Your task to perform on an android device: snooze an email in the gmail app Image 0: 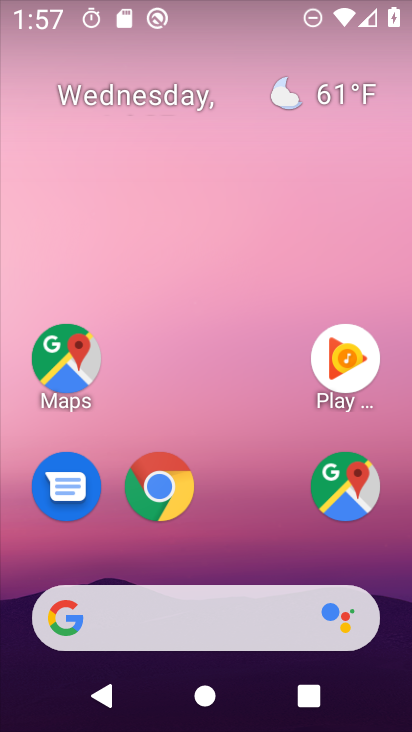
Step 0: press home button
Your task to perform on an android device: snooze an email in the gmail app Image 1: 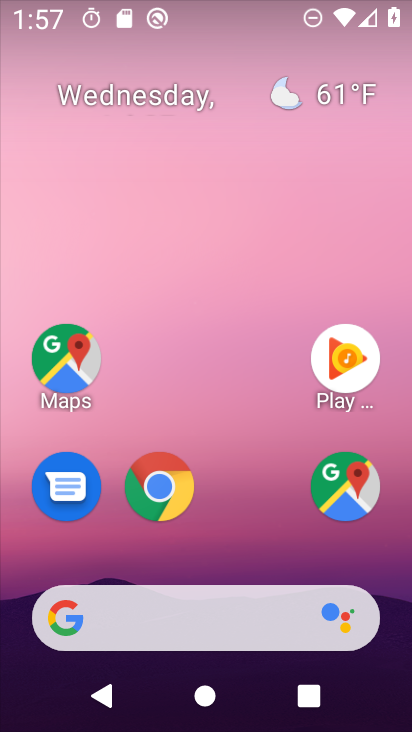
Step 1: drag from (254, 525) to (263, 106)
Your task to perform on an android device: snooze an email in the gmail app Image 2: 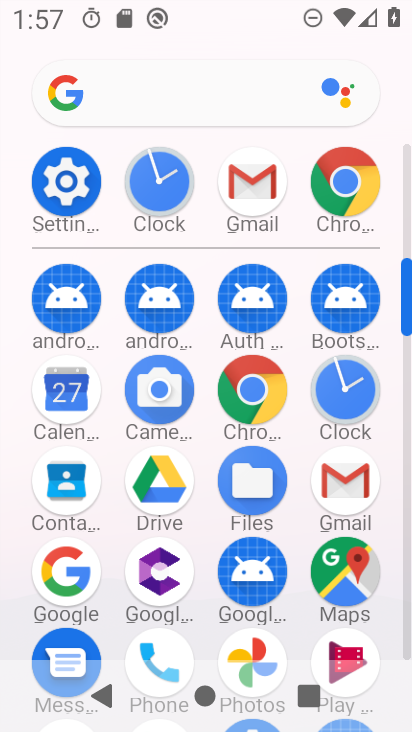
Step 2: click (352, 482)
Your task to perform on an android device: snooze an email in the gmail app Image 3: 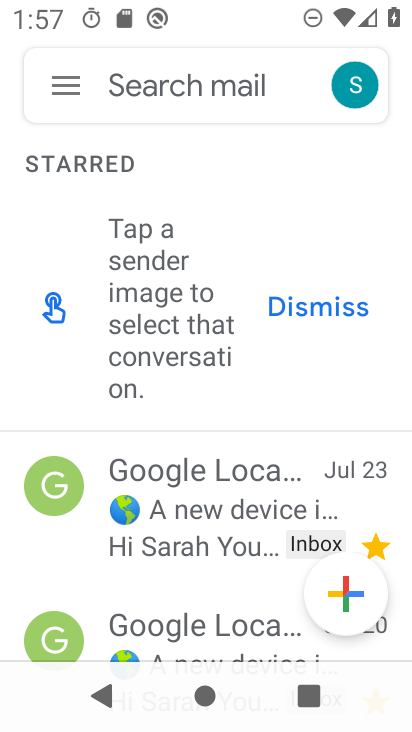
Step 3: click (65, 83)
Your task to perform on an android device: snooze an email in the gmail app Image 4: 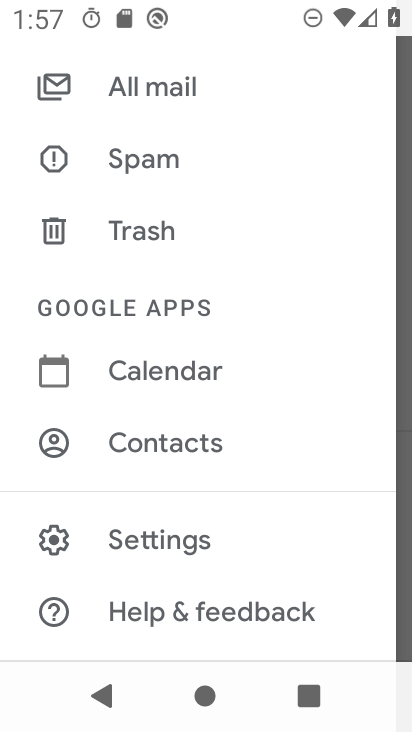
Step 4: drag from (332, 298) to (325, 374)
Your task to perform on an android device: snooze an email in the gmail app Image 5: 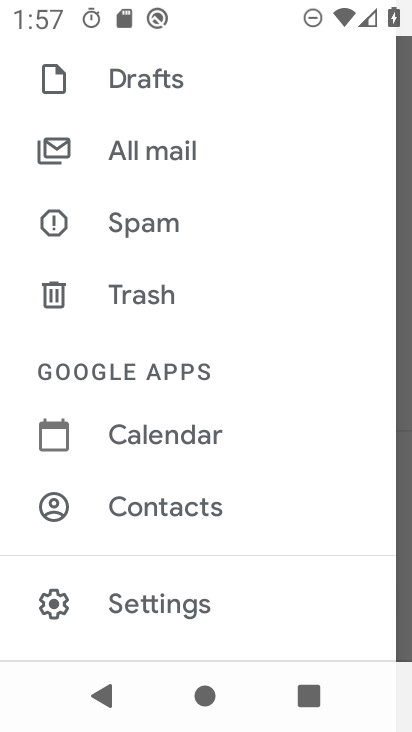
Step 5: drag from (311, 236) to (311, 327)
Your task to perform on an android device: snooze an email in the gmail app Image 6: 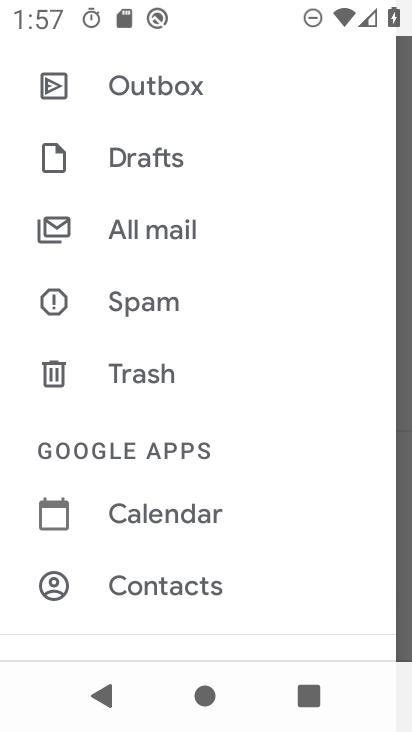
Step 6: drag from (271, 220) to (293, 490)
Your task to perform on an android device: snooze an email in the gmail app Image 7: 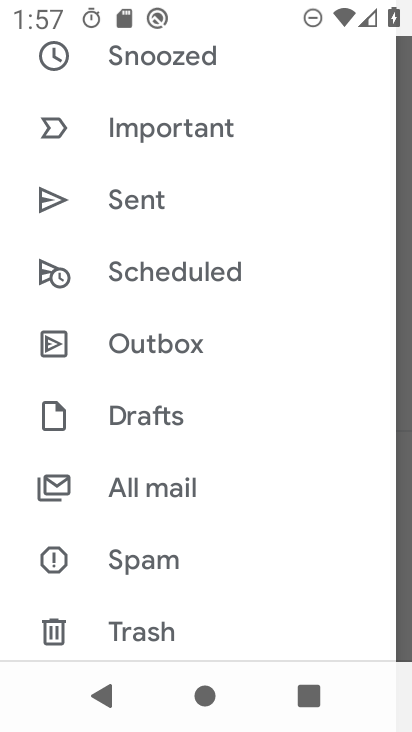
Step 7: drag from (303, 234) to (309, 385)
Your task to perform on an android device: snooze an email in the gmail app Image 8: 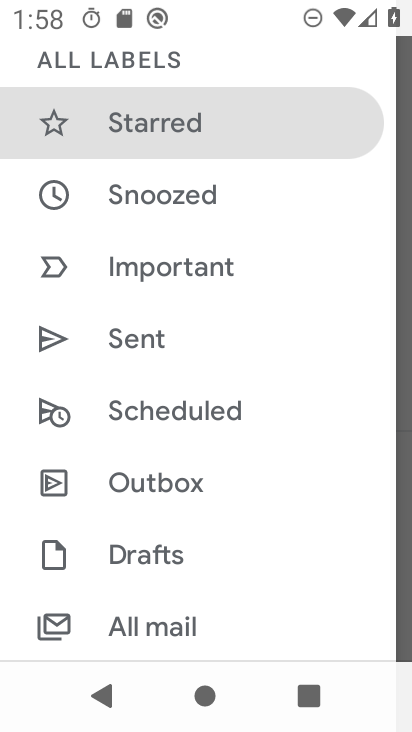
Step 8: drag from (310, 194) to (321, 380)
Your task to perform on an android device: snooze an email in the gmail app Image 9: 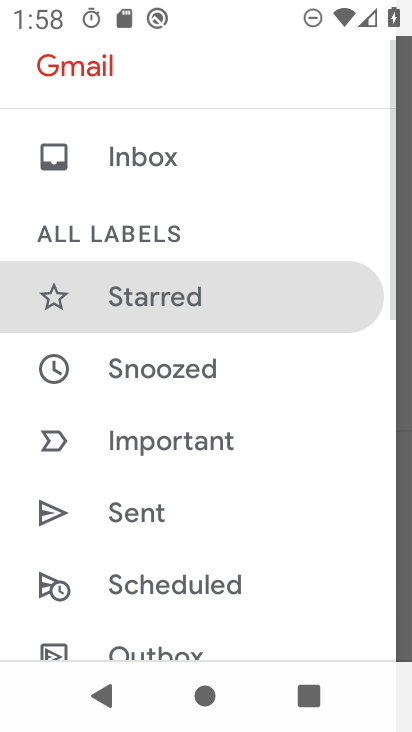
Step 9: click (207, 340)
Your task to perform on an android device: snooze an email in the gmail app Image 10: 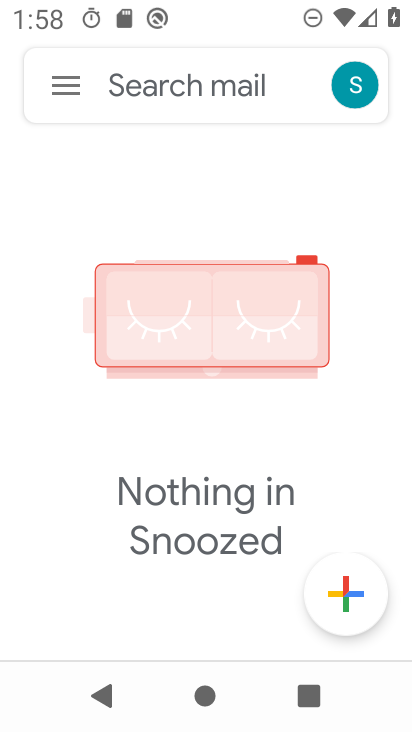
Step 10: task complete